Your task to perform on an android device: What's the latest video from GameSpot Trailers? Image 0: 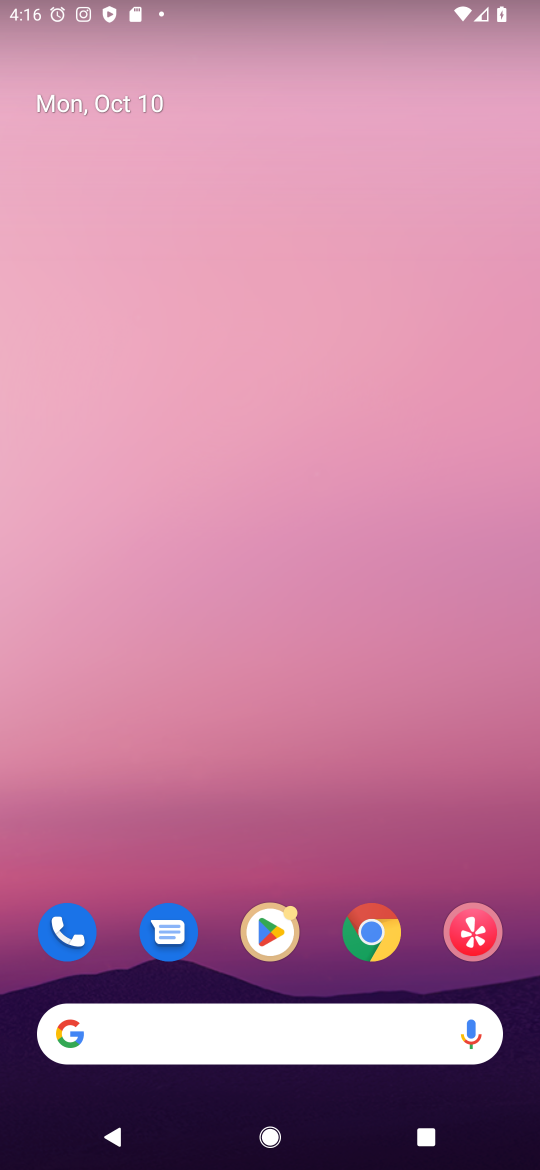
Step 0: press home button
Your task to perform on an android device: What's the latest video from GameSpot Trailers? Image 1: 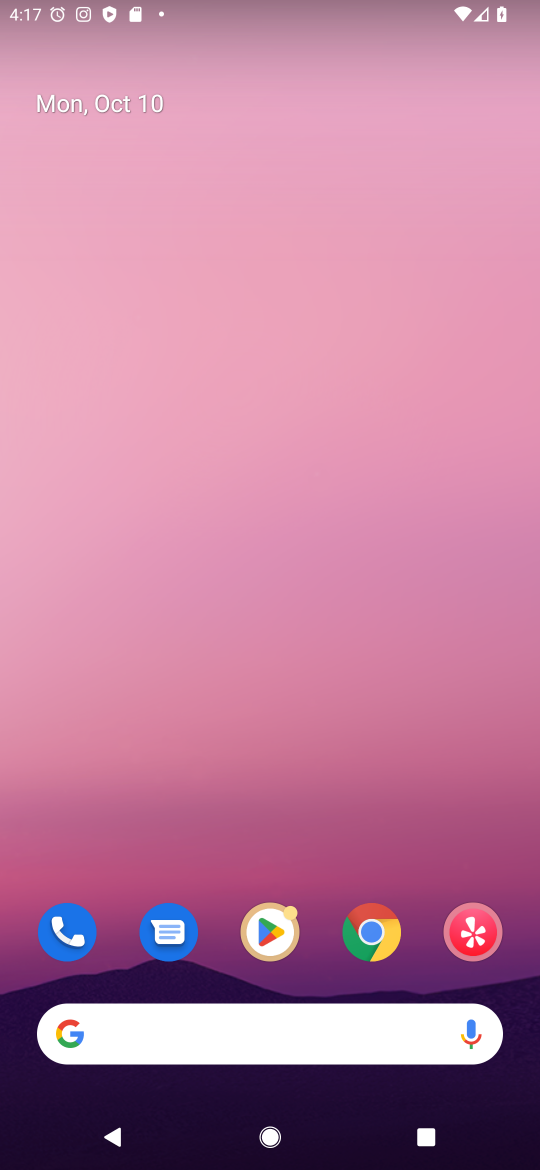
Step 1: click (354, 1034)
Your task to perform on an android device: What's the latest video from GameSpot Trailers? Image 2: 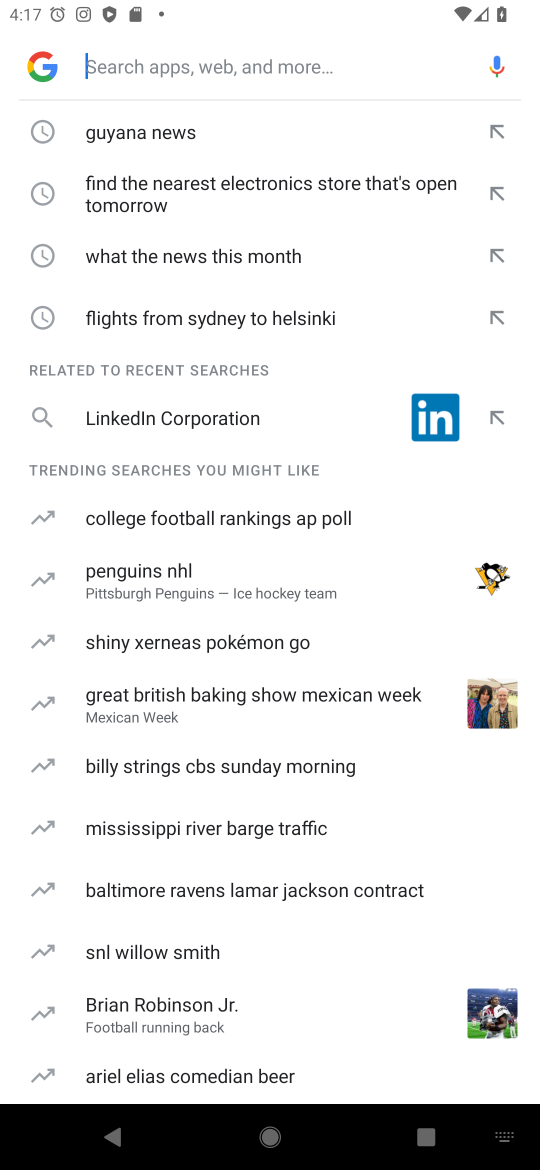
Step 2: press enter
Your task to perform on an android device: What's the latest video from GameSpot Trailers? Image 3: 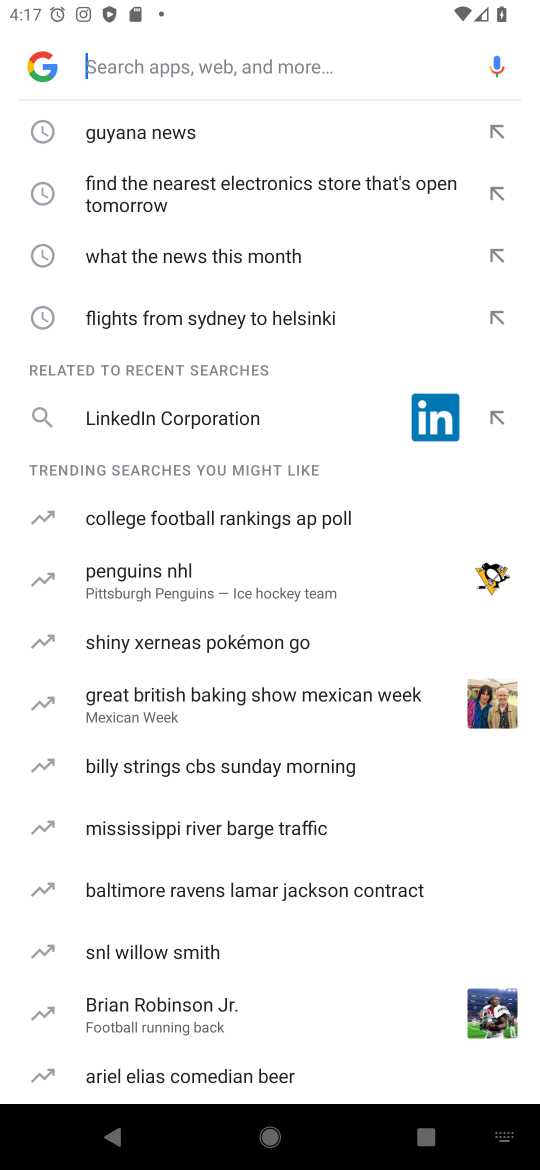
Step 3: type "What's the latest video from GameSpot Trailers"
Your task to perform on an android device: What's the latest video from GameSpot Trailers? Image 4: 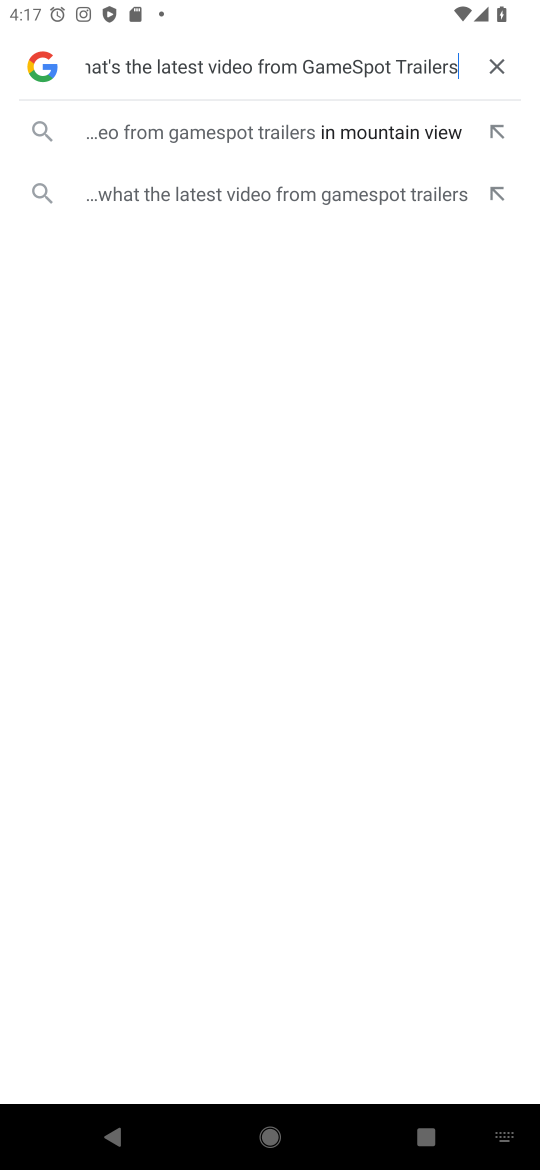
Step 4: press enter
Your task to perform on an android device: What's the latest video from GameSpot Trailers? Image 5: 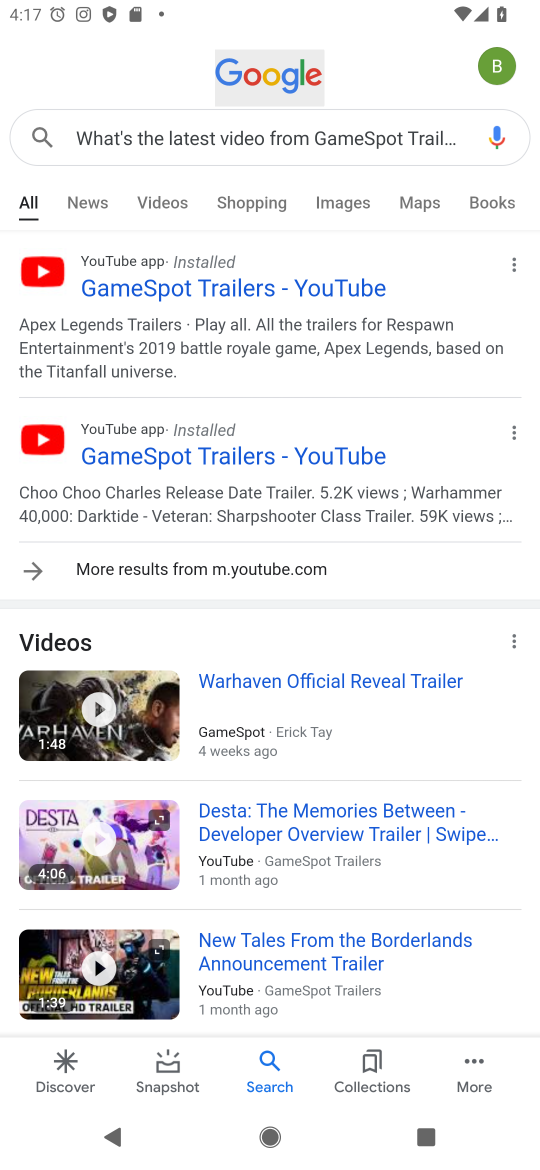
Step 5: click (276, 285)
Your task to perform on an android device: What's the latest video from GameSpot Trailers? Image 6: 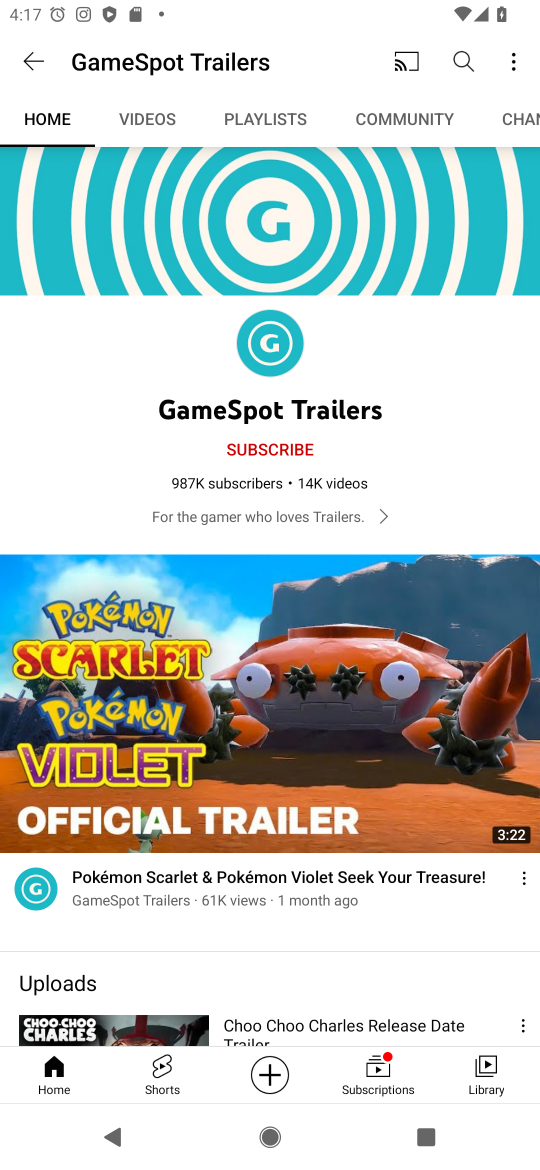
Step 6: task complete